Your task to perform on an android device: Show me the alarms in the clock app Image 0: 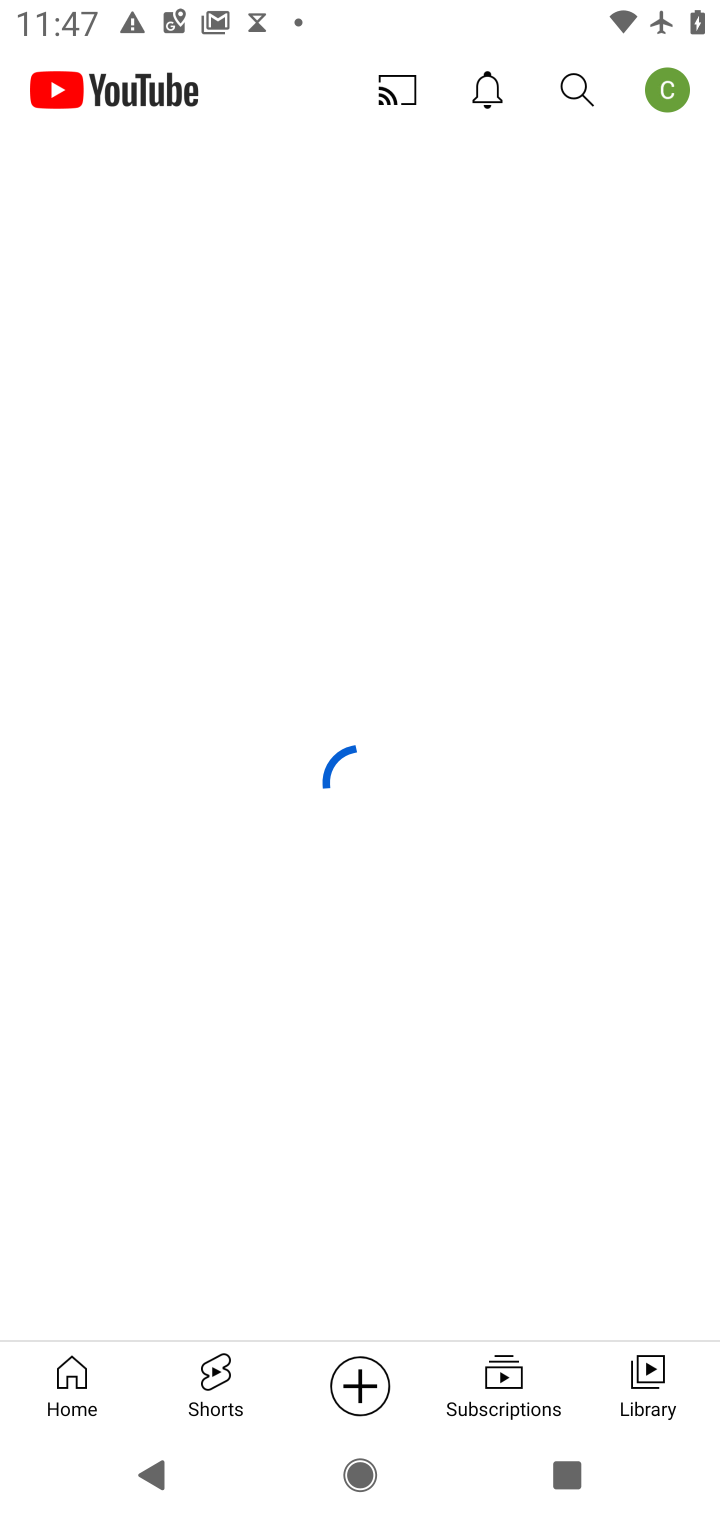
Step 0: press home button
Your task to perform on an android device: Show me the alarms in the clock app Image 1: 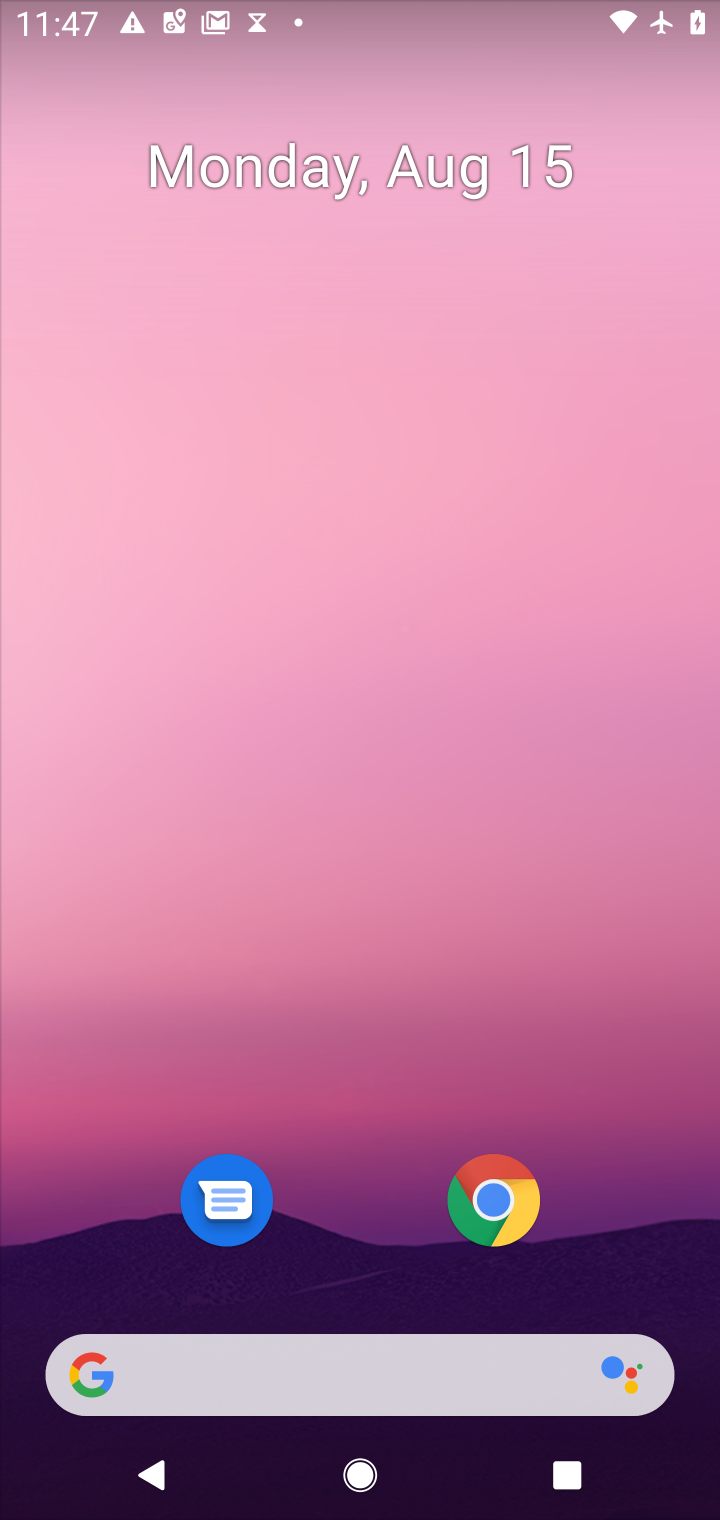
Step 1: drag from (353, 1218) to (341, 497)
Your task to perform on an android device: Show me the alarms in the clock app Image 2: 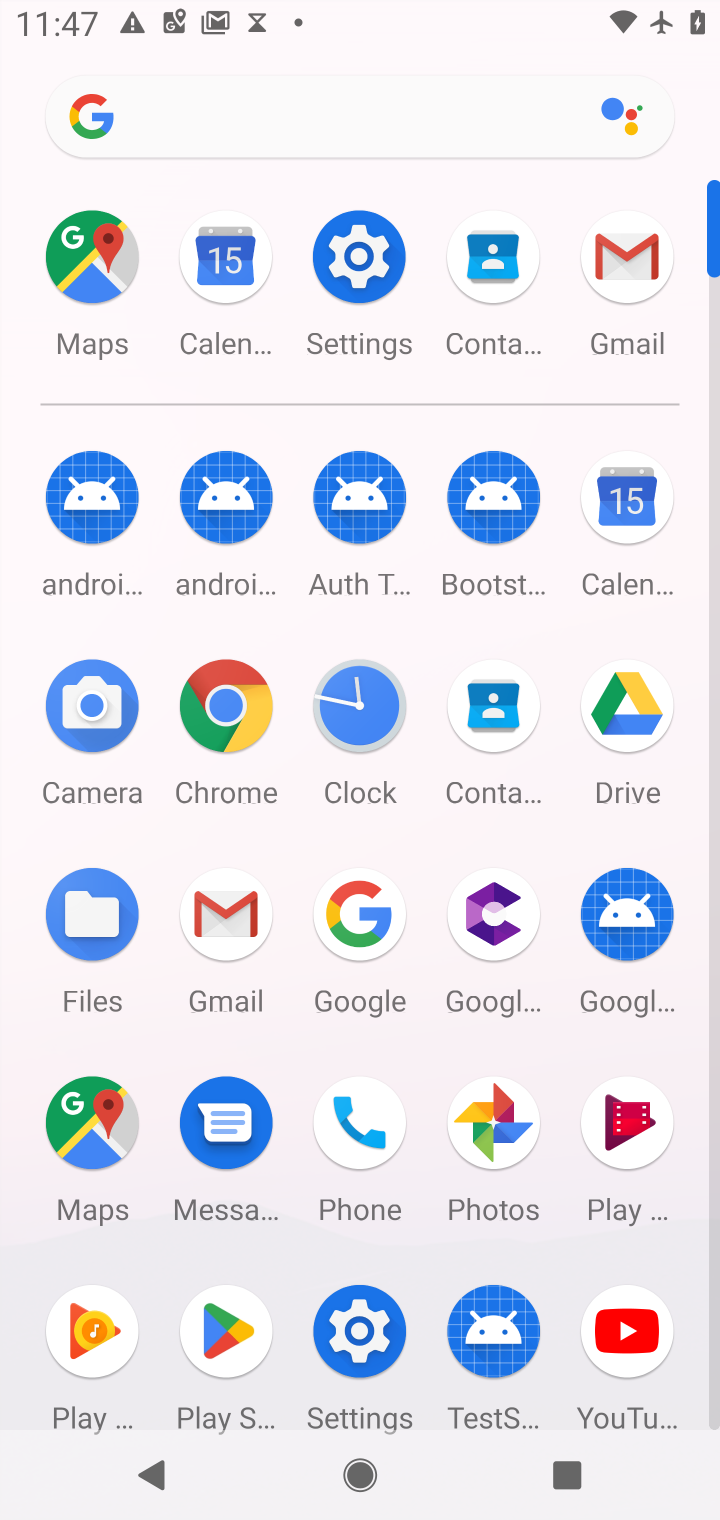
Step 2: click (326, 677)
Your task to perform on an android device: Show me the alarms in the clock app Image 3: 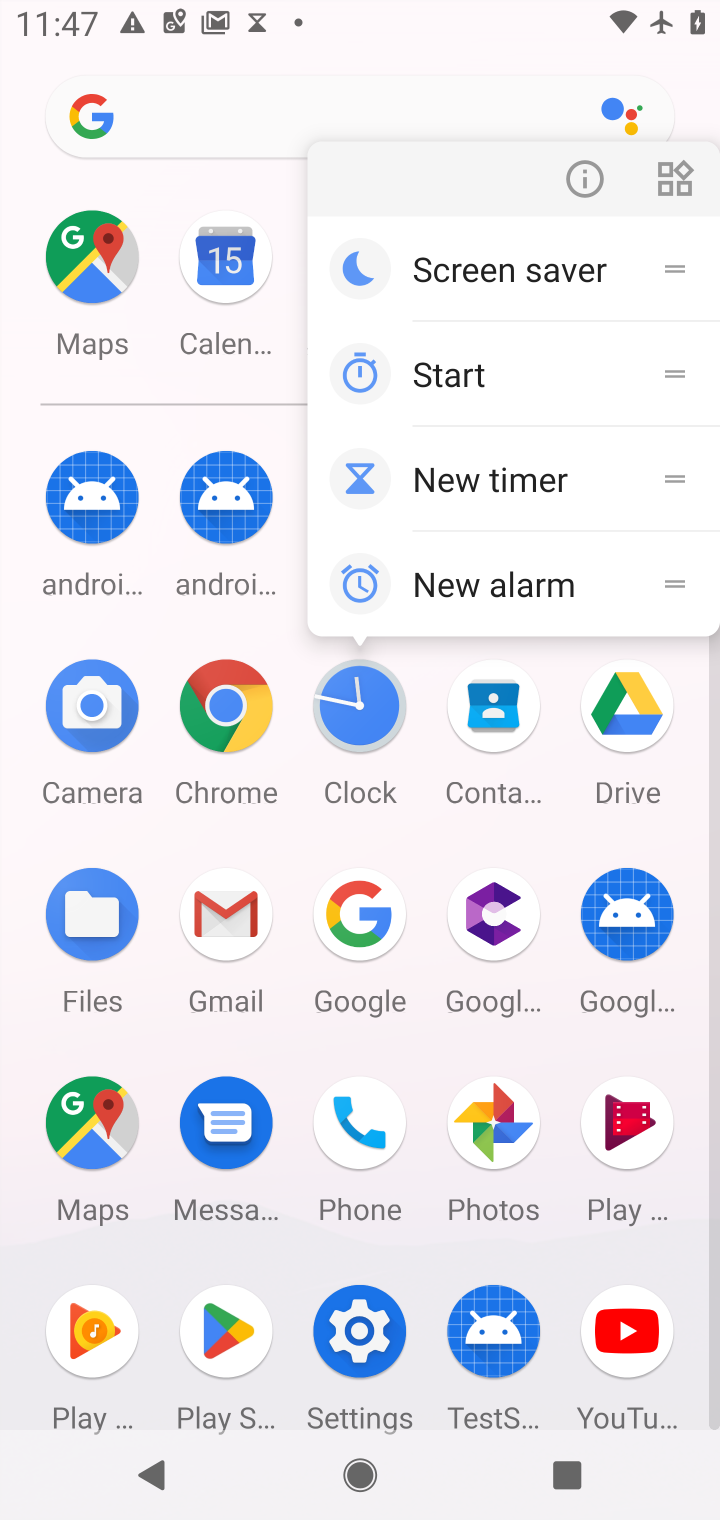
Step 3: click (351, 735)
Your task to perform on an android device: Show me the alarms in the clock app Image 4: 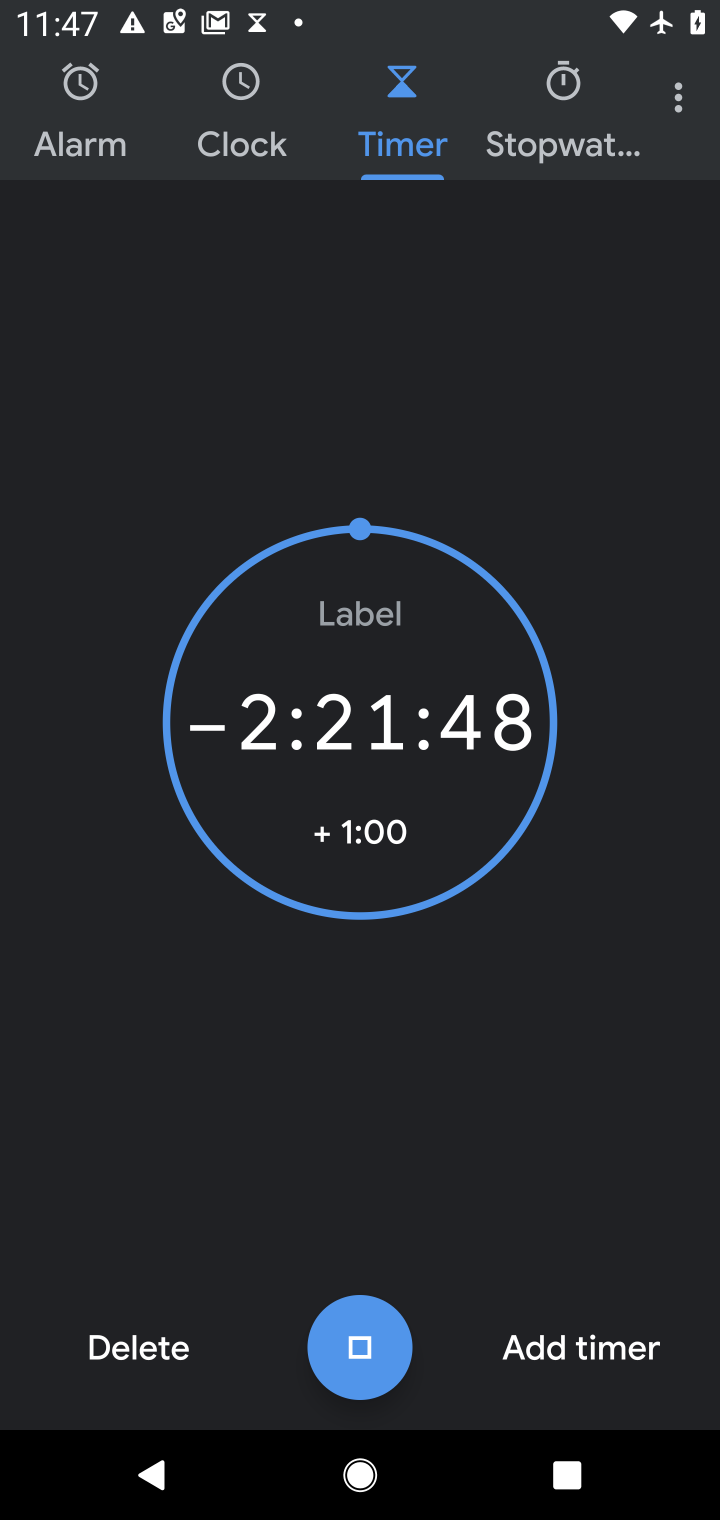
Step 4: click (87, 123)
Your task to perform on an android device: Show me the alarms in the clock app Image 5: 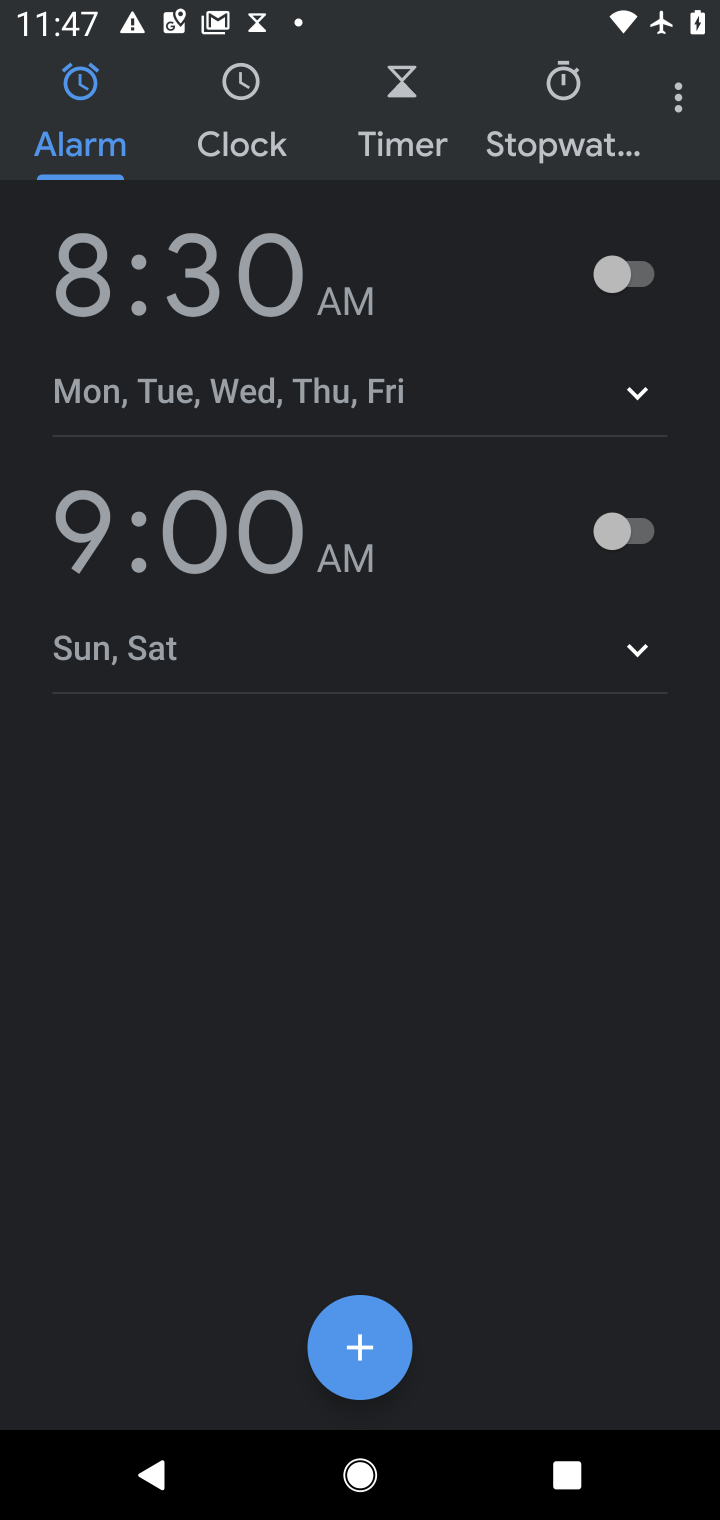
Step 5: task complete